Your task to perform on an android device: Open wifi settings Image 0: 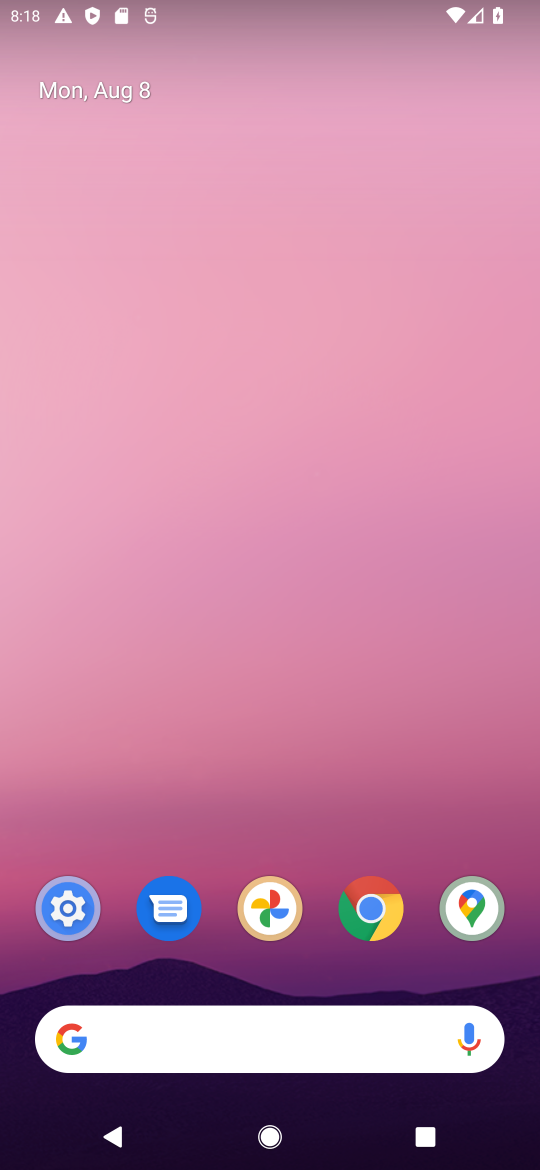
Step 0: click (70, 915)
Your task to perform on an android device: Open wifi settings Image 1: 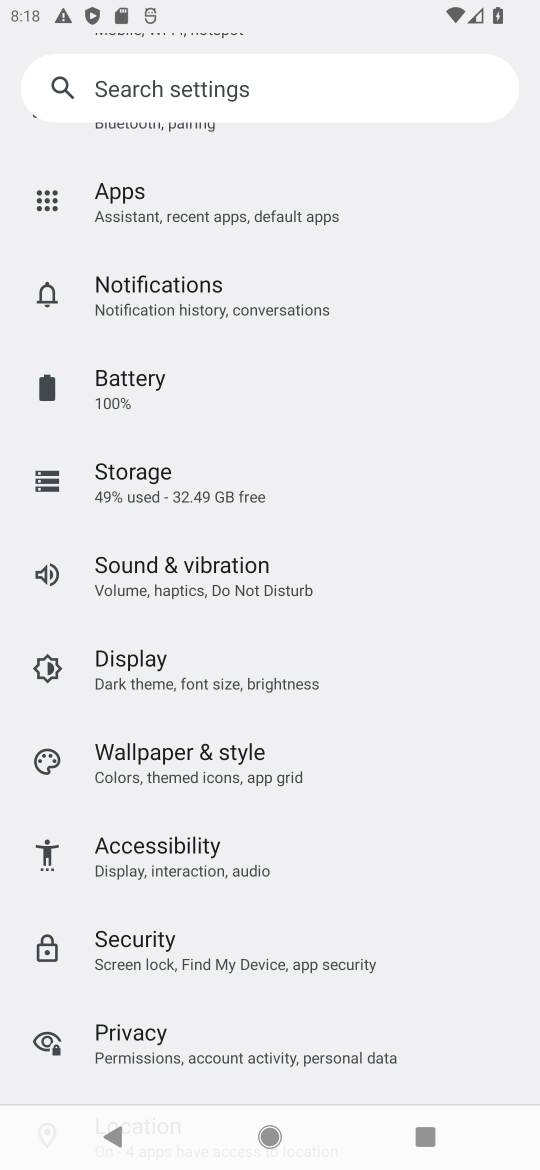
Step 1: drag from (283, 181) to (217, 942)
Your task to perform on an android device: Open wifi settings Image 2: 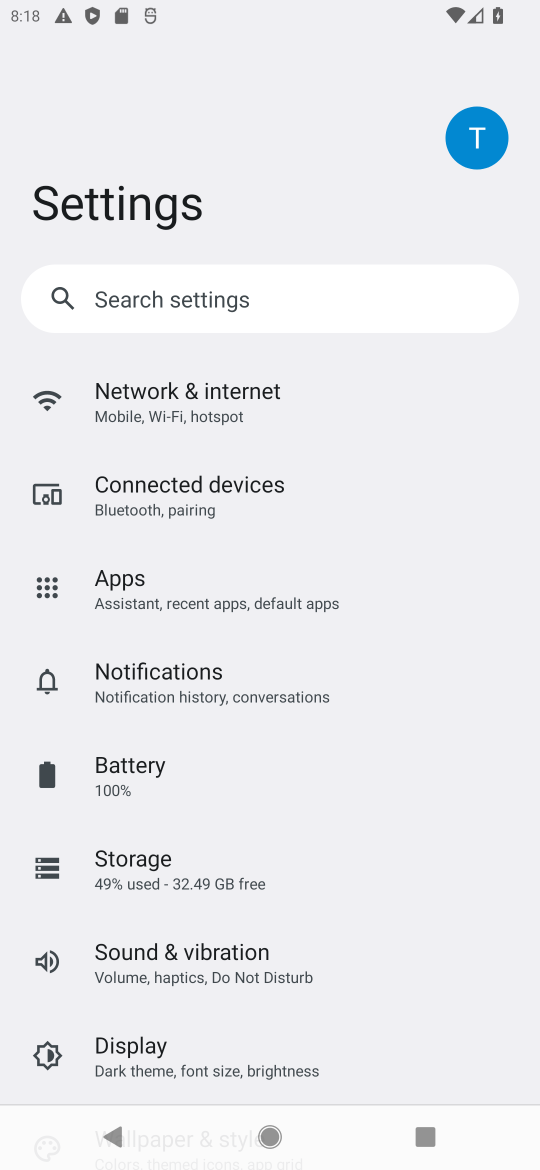
Step 2: click (255, 385)
Your task to perform on an android device: Open wifi settings Image 3: 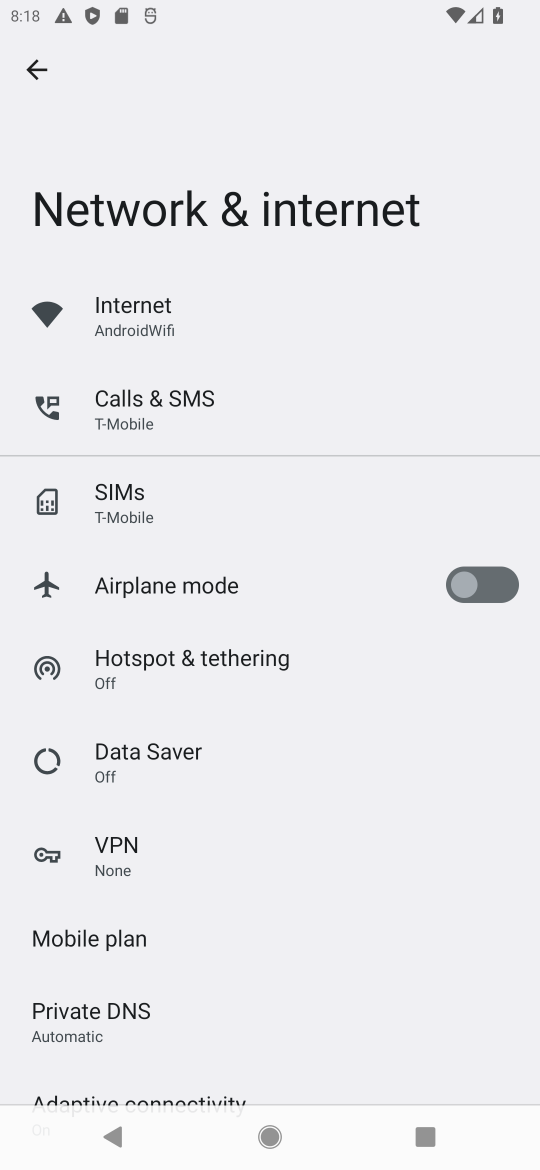
Step 3: click (213, 314)
Your task to perform on an android device: Open wifi settings Image 4: 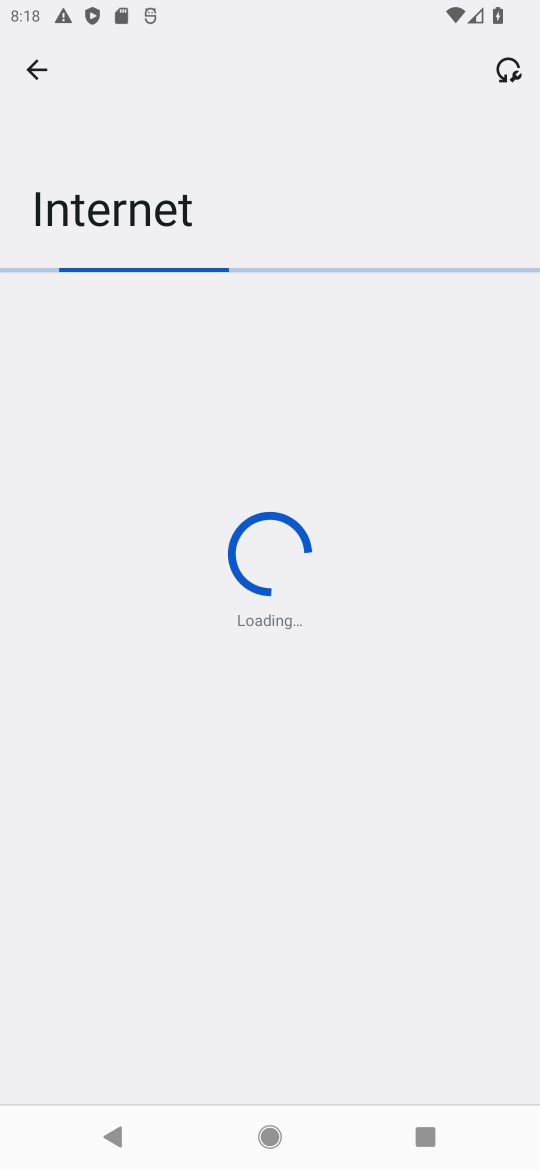
Step 4: task complete